Your task to perform on an android device: change the clock display to show seconds Image 0: 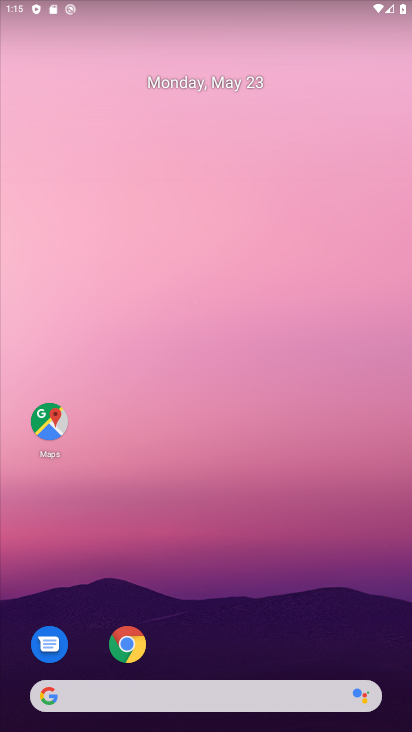
Step 0: drag from (219, 551) to (148, 0)
Your task to perform on an android device: change the clock display to show seconds Image 1: 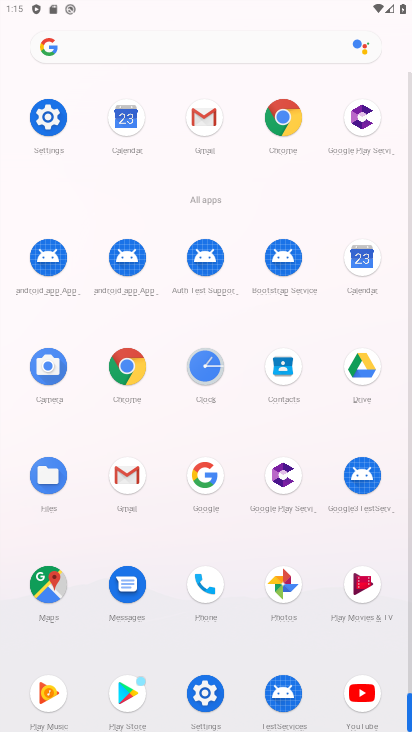
Step 1: drag from (12, 563) to (1, 142)
Your task to perform on an android device: change the clock display to show seconds Image 2: 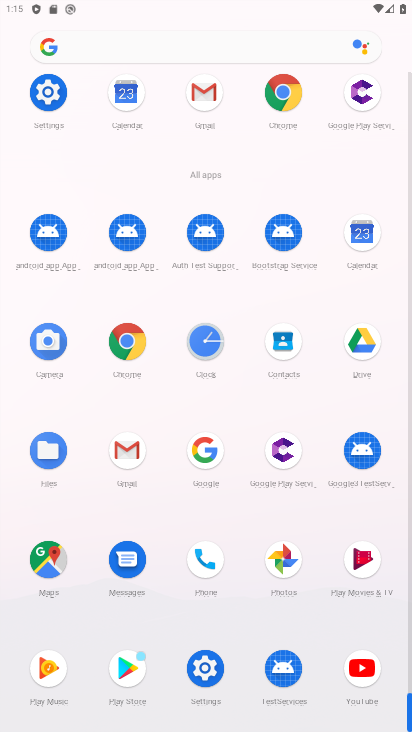
Step 2: click (203, 341)
Your task to perform on an android device: change the clock display to show seconds Image 3: 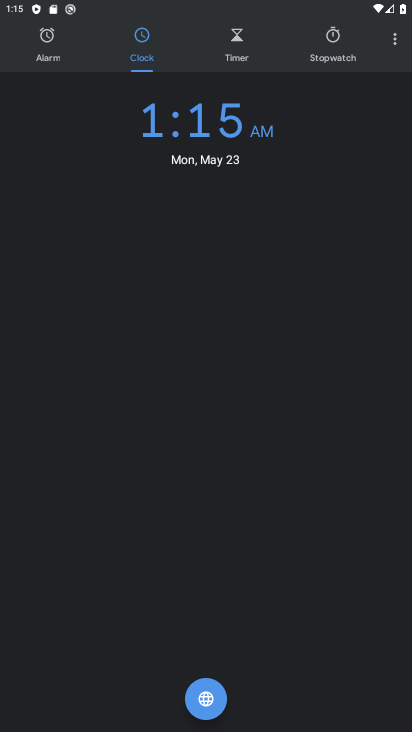
Step 3: drag from (392, 44) to (365, 79)
Your task to perform on an android device: change the clock display to show seconds Image 4: 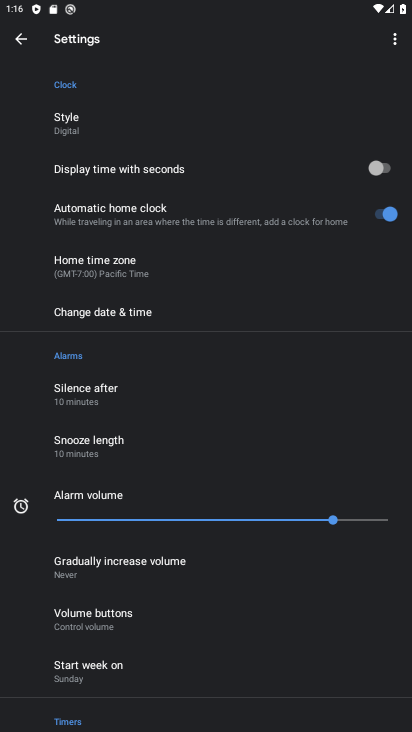
Step 4: click (384, 171)
Your task to perform on an android device: change the clock display to show seconds Image 5: 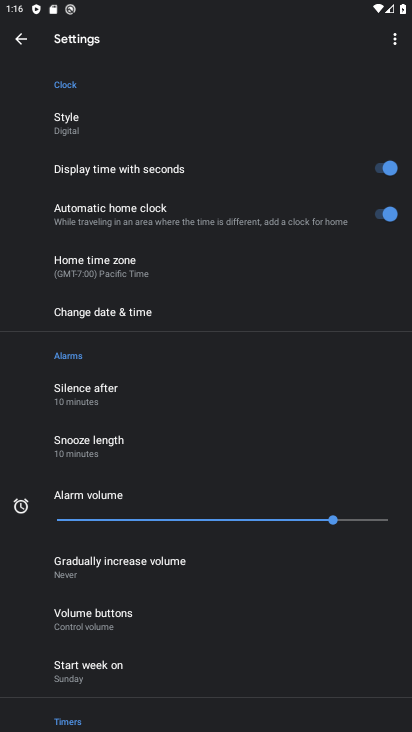
Step 5: task complete